Your task to perform on an android device: Go to Android settings Image 0: 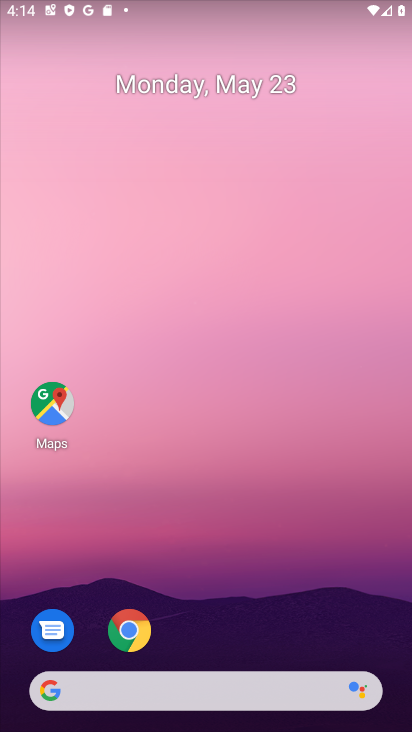
Step 0: press home button
Your task to perform on an android device: Go to Android settings Image 1: 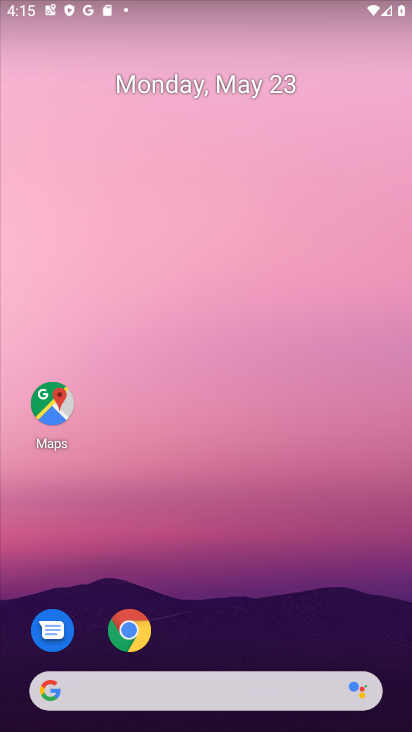
Step 1: drag from (217, 657) to (223, 45)
Your task to perform on an android device: Go to Android settings Image 2: 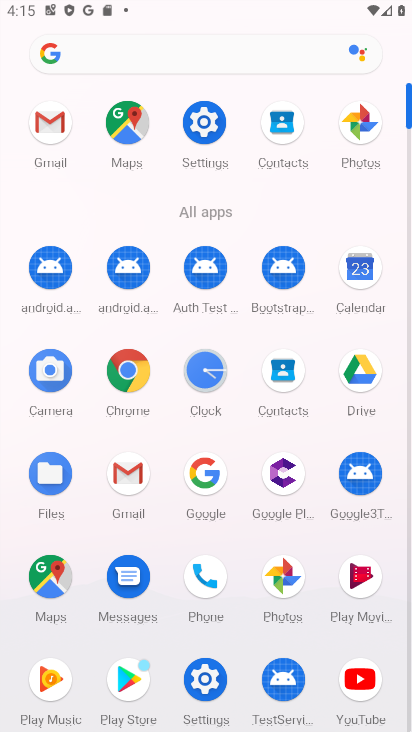
Step 2: click (199, 114)
Your task to perform on an android device: Go to Android settings Image 3: 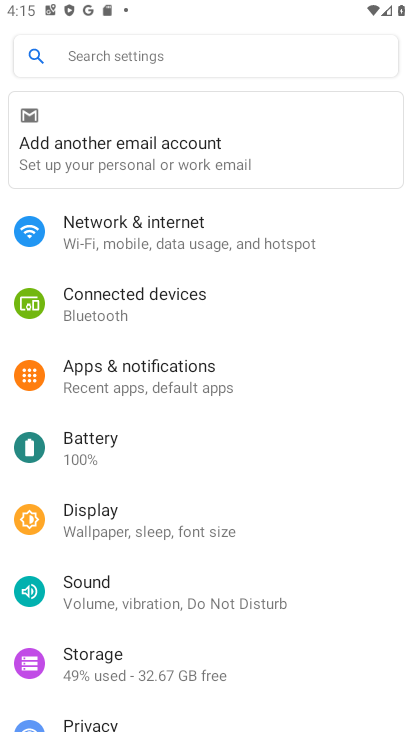
Step 3: drag from (206, 671) to (222, 83)
Your task to perform on an android device: Go to Android settings Image 4: 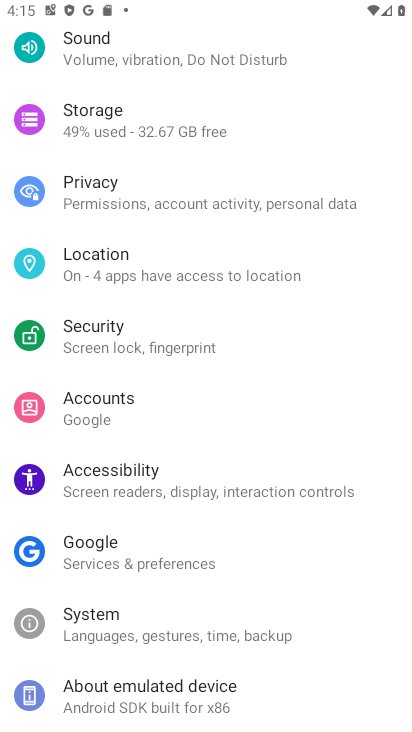
Step 4: click (248, 690)
Your task to perform on an android device: Go to Android settings Image 5: 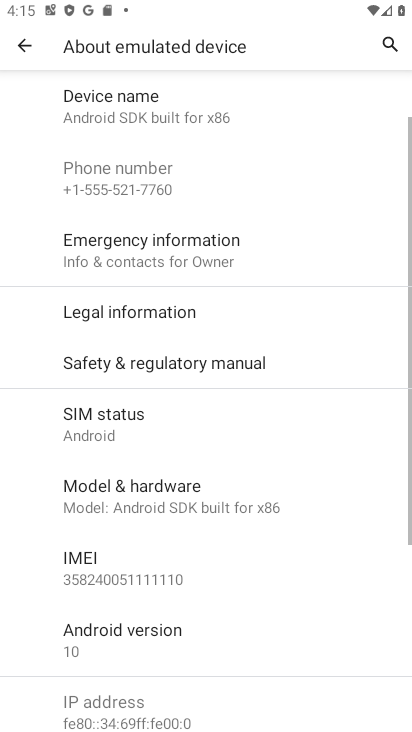
Step 5: drag from (206, 676) to (236, 167)
Your task to perform on an android device: Go to Android settings Image 6: 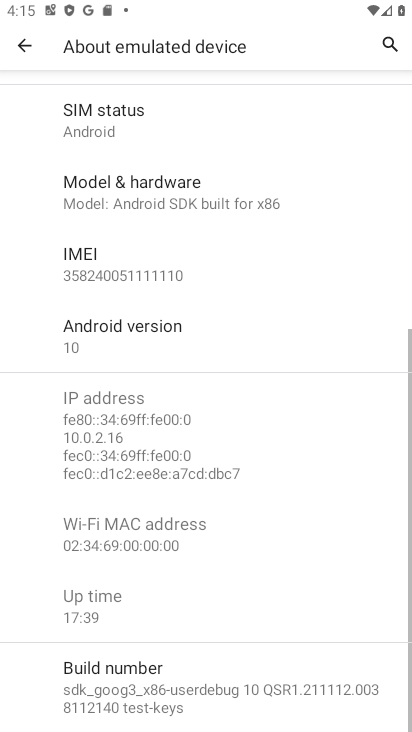
Step 6: click (118, 340)
Your task to perform on an android device: Go to Android settings Image 7: 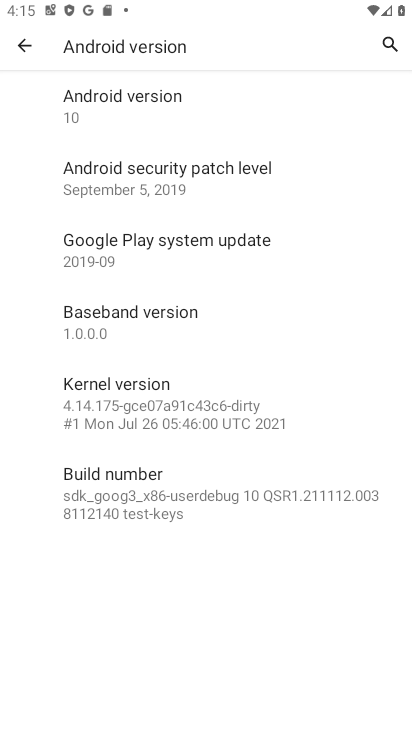
Step 7: task complete